Your task to perform on an android device: turn off translation in the chrome app Image 0: 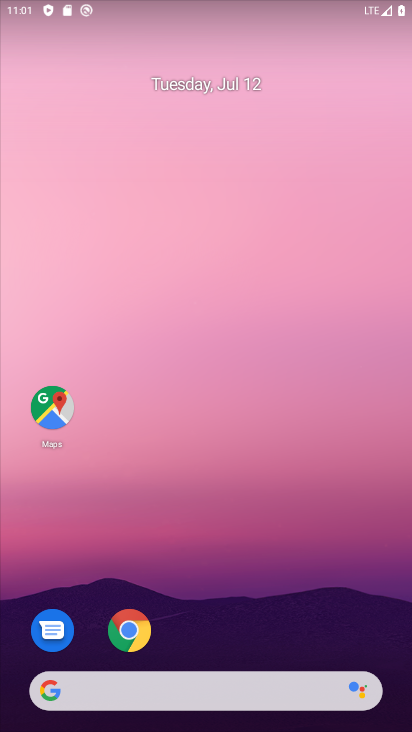
Step 0: drag from (393, 678) to (258, 206)
Your task to perform on an android device: turn off translation in the chrome app Image 1: 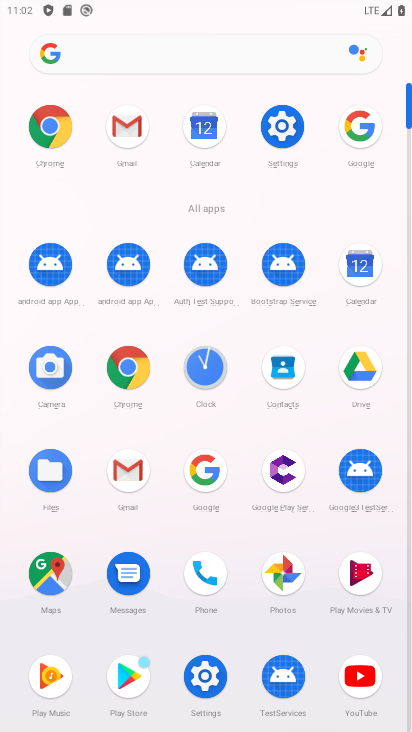
Step 1: click (104, 345)
Your task to perform on an android device: turn off translation in the chrome app Image 2: 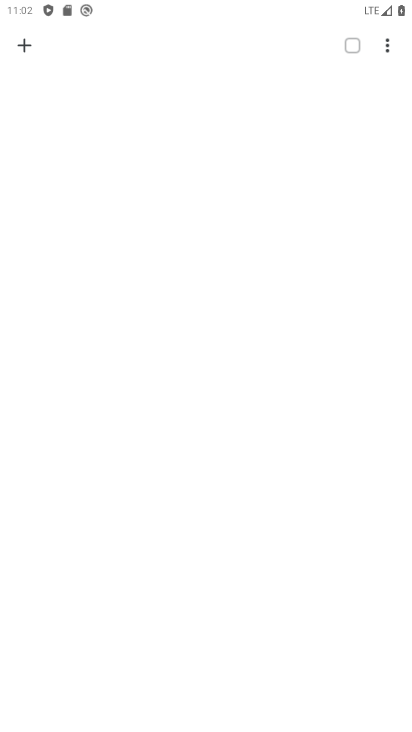
Step 2: click (390, 51)
Your task to perform on an android device: turn off translation in the chrome app Image 3: 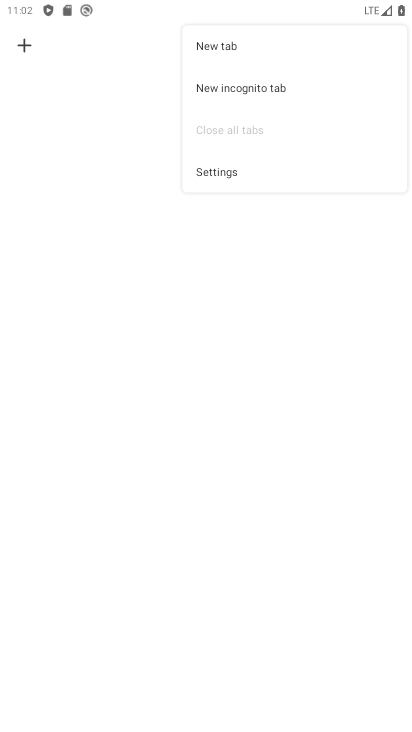
Step 3: click (226, 168)
Your task to perform on an android device: turn off translation in the chrome app Image 4: 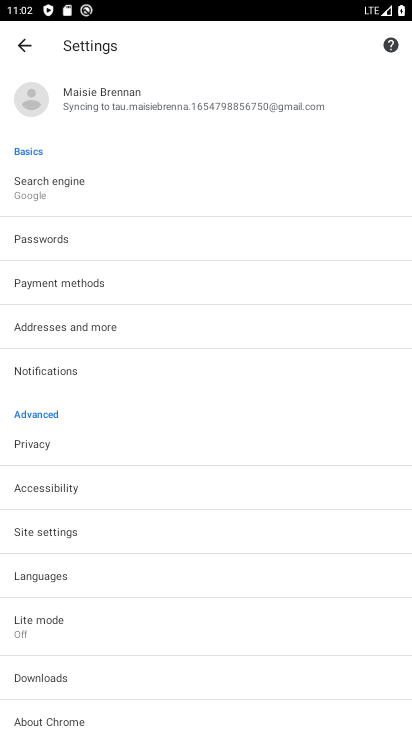
Step 4: click (98, 575)
Your task to perform on an android device: turn off translation in the chrome app Image 5: 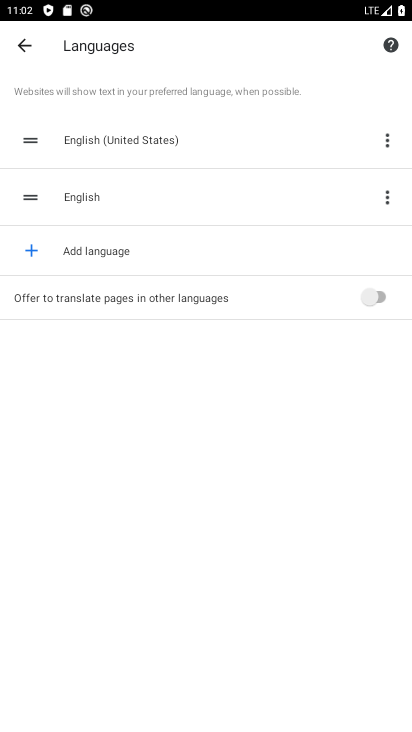
Step 5: task complete